Your task to perform on an android device: Show me the alarms in the clock app Image 0: 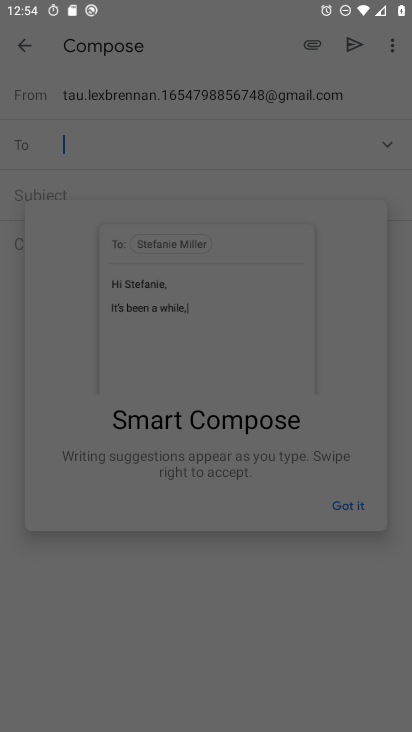
Step 0: press home button
Your task to perform on an android device: Show me the alarms in the clock app Image 1: 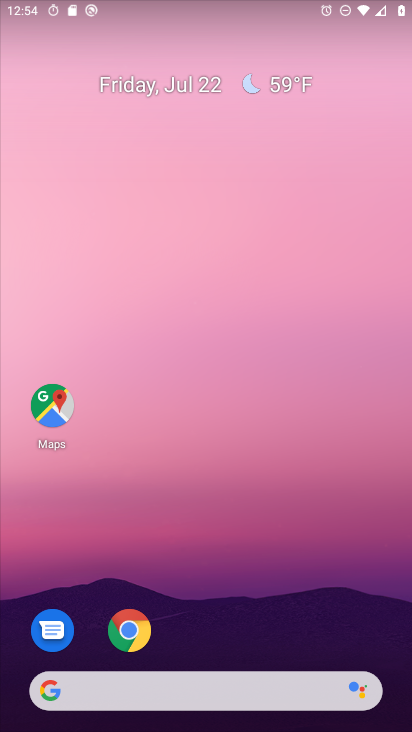
Step 1: drag from (185, 651) to (337, 109)
Your task to perform on an android device: Show me the alarms in the clock app Image 2: 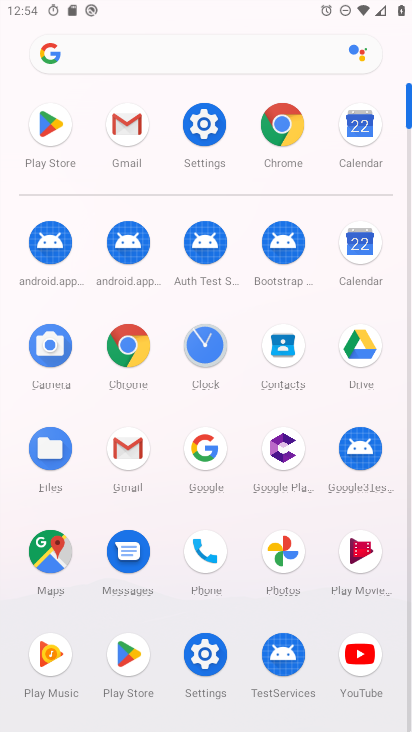
Step 2: click (196, 349)
Your task to perform on an android device: Show me the alarms in the clock app Image 3: 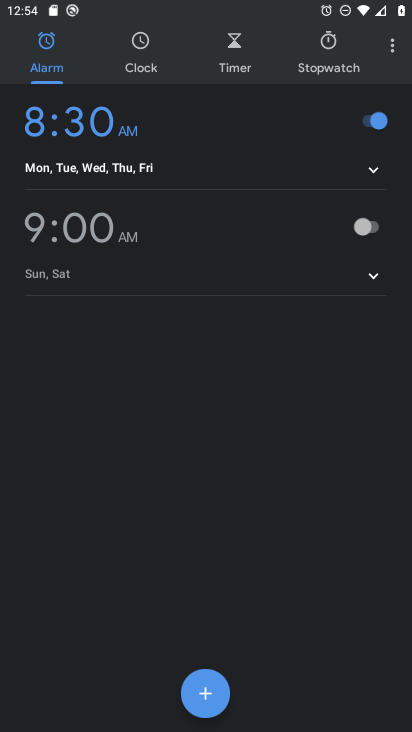
Step 3: task complete